Your task to perform on an android device: open app "Duolingo: language lessons" (install if not already installed) Image 0: 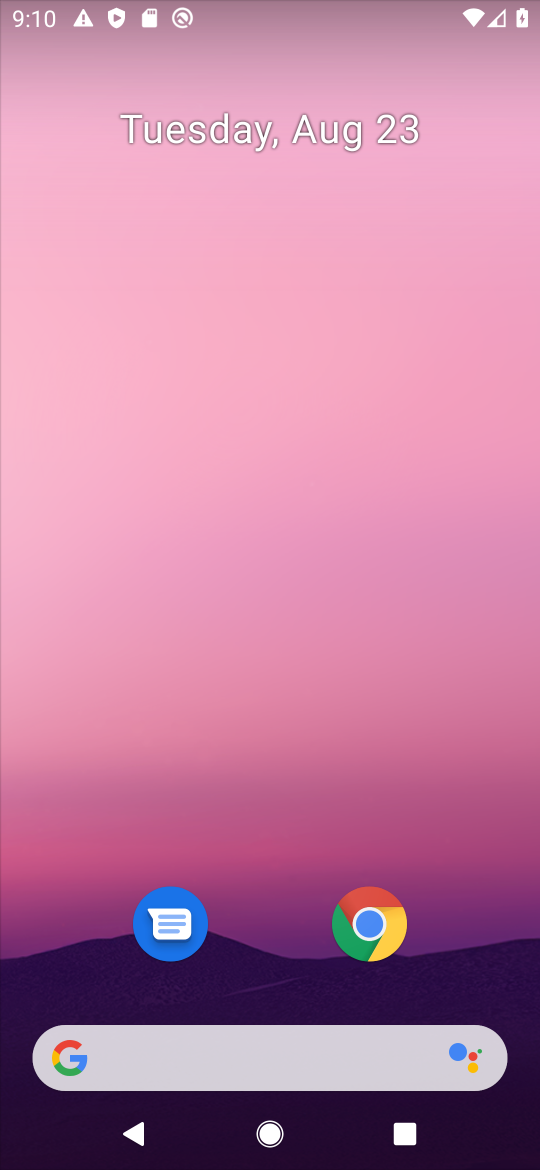
Step 0: drag from (467, 911) to (511, 168)
Your task to perform on an android device: open app "Duolingo: language lessons" (install if not already installed) Image 1: 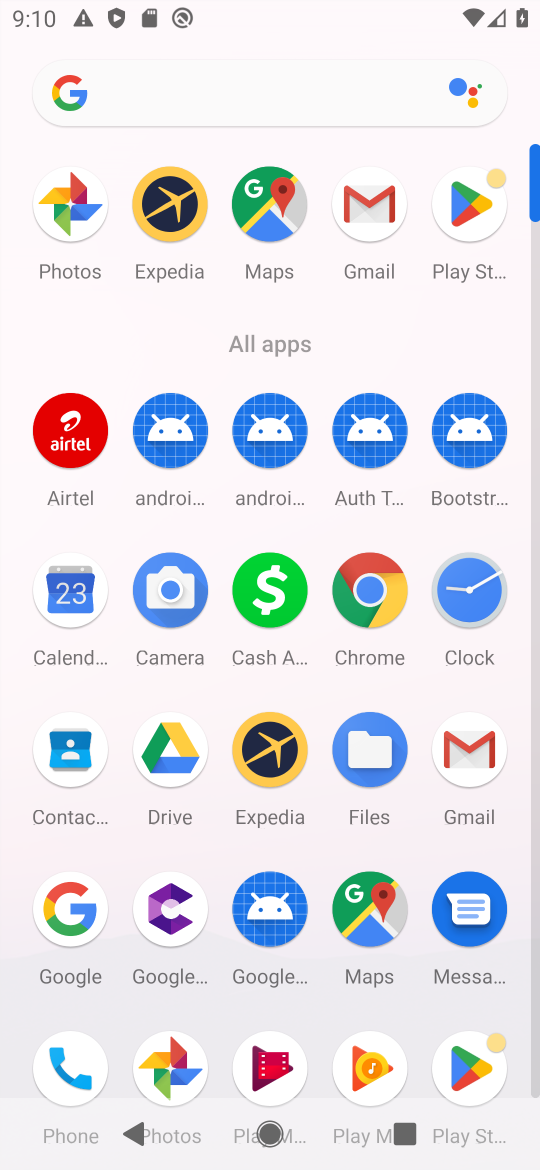
Step 1: click (464, 207)
Your task to perform on an android device: open app "Duolingo: language lessons" (install if not already installed) Image 2: 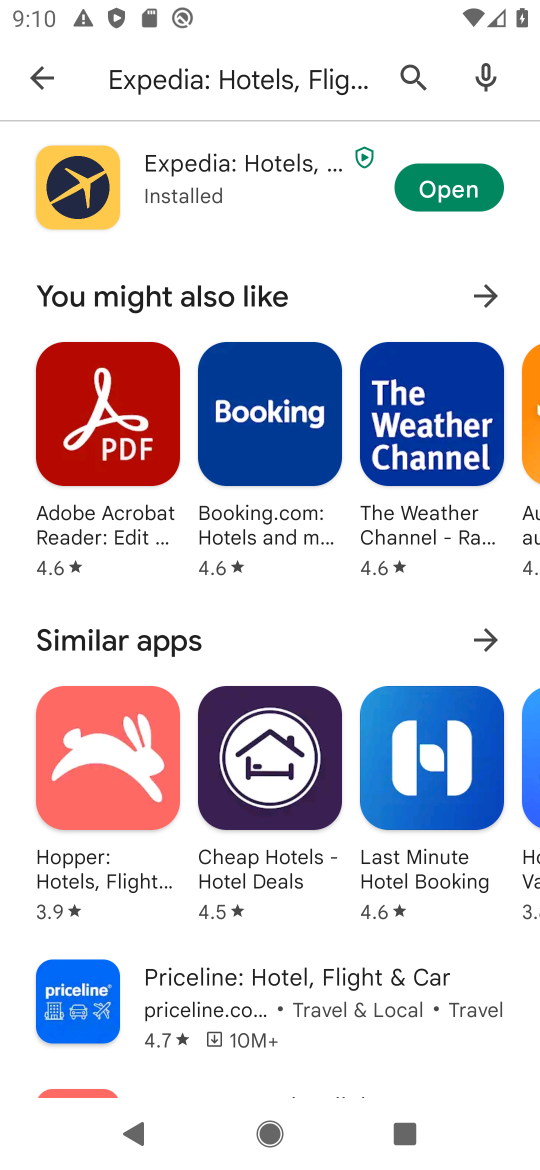
Step 2: press back button
Your task to perform on an android device: open app "Duolingo: language lessons" (install if not already installed) Image 3: 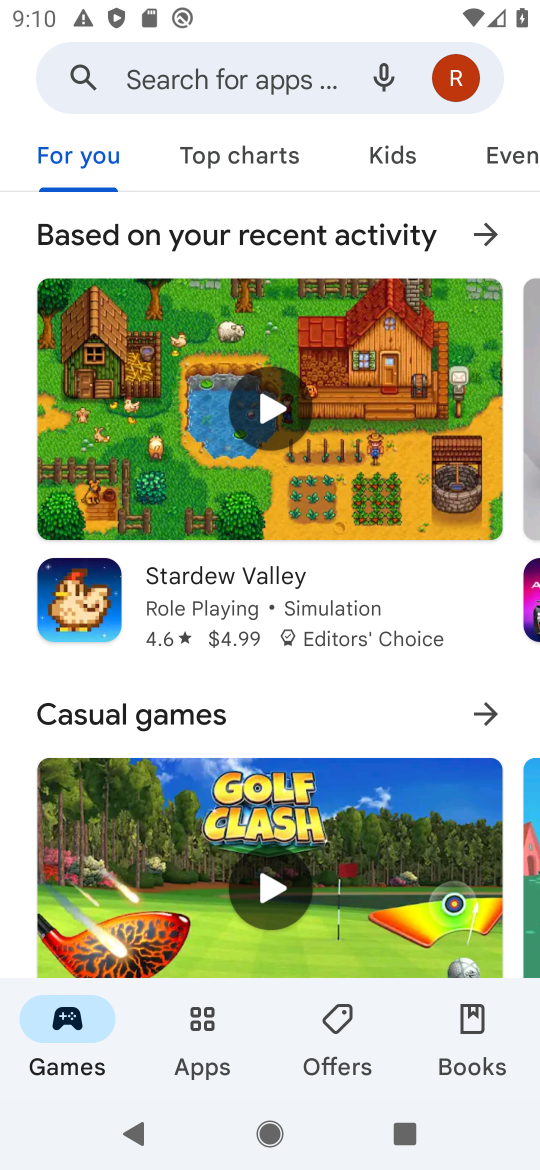
Step 3: click (257, 83)
Your task to perform on an android device: open app "Duolingo: language lessons" (install if not already installed) Image 4: 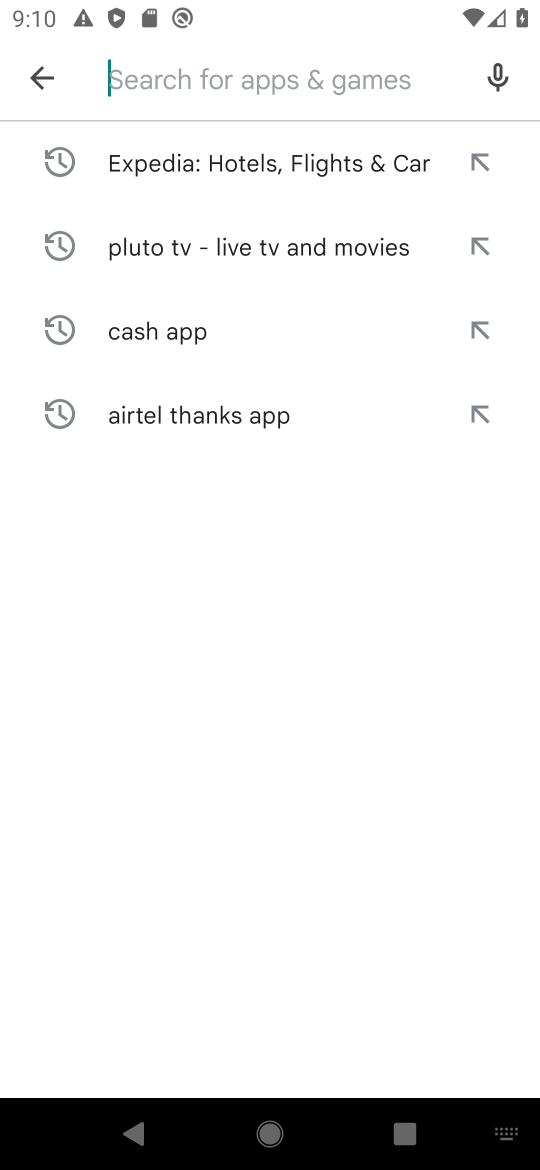
Step 4: type "Duolingo: language lessons"
Your task to perform on an android device: open app "Duolingo: language lessons" (install if not already installed) Image 5: 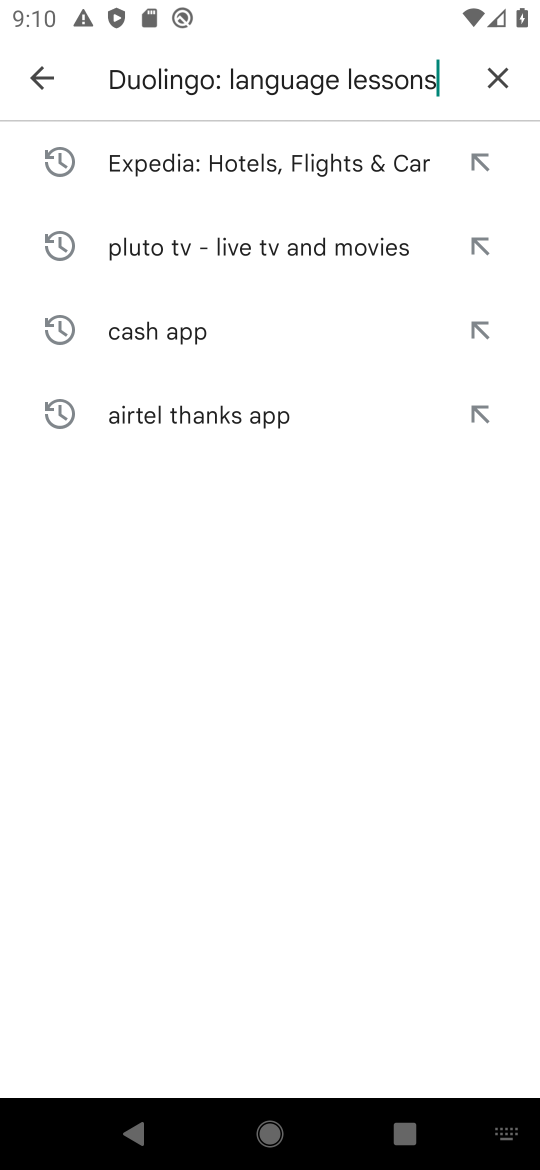
Step 5: press enter
Your task to perform on an android device: open app "Duolingo: language lessons" (install if not already installed) Image 6: 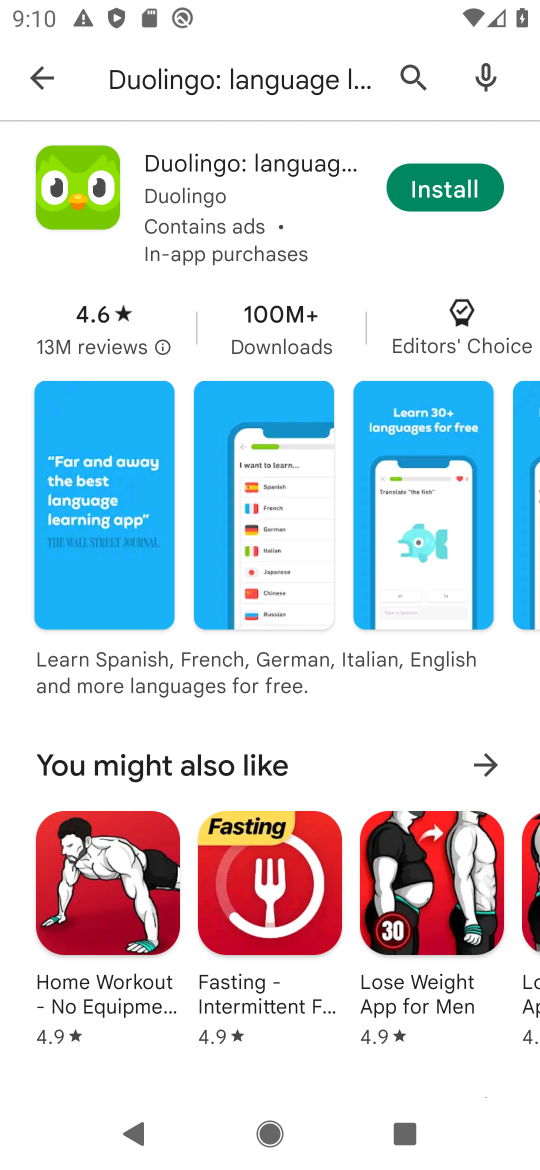
Step 6: click (430, 191)
Your task to perform on an android device: open app "Duolingo: language lessons" (install if not already installed) Image 7: 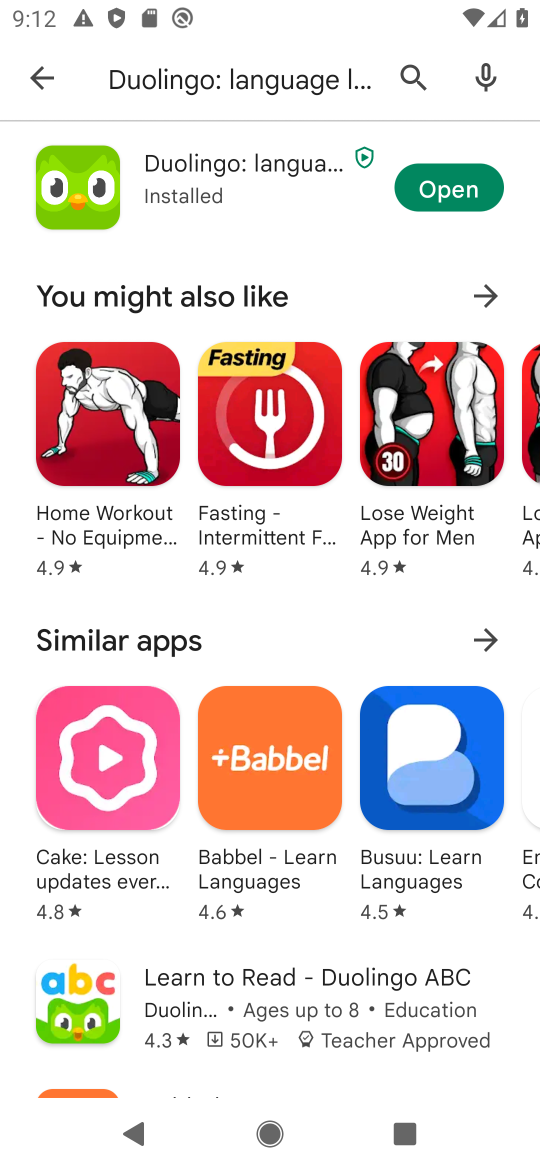
Step 7: click (463, 191)
Your task to perform on an android device: open app "Duolingo: language lessons" (install if not already installed) Image 8: 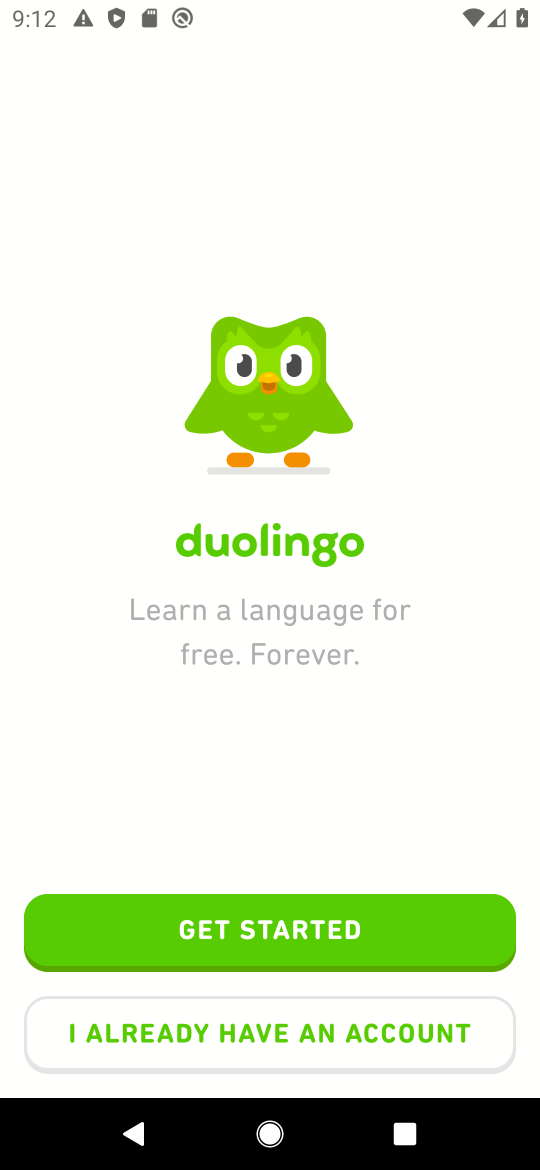
Step 8: task complete